Your task to perform on an android device: open chrome and create a bookmark for the current page Image 0: 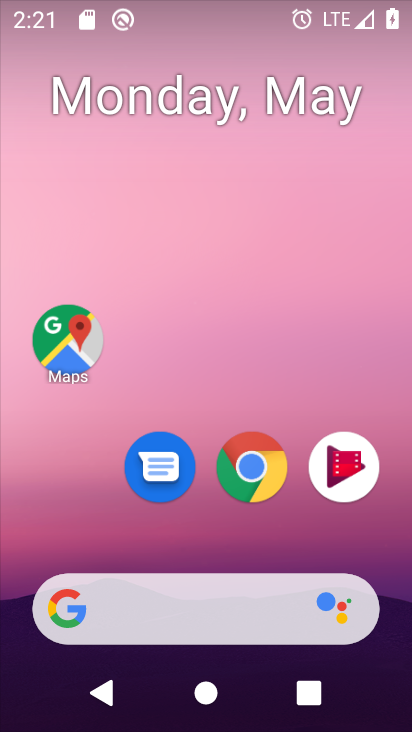
Step 0: drag from (212, 512) to (208, 221)
Your task to perform on an android device: open chrome and create a bookmark for the current page Image 1: 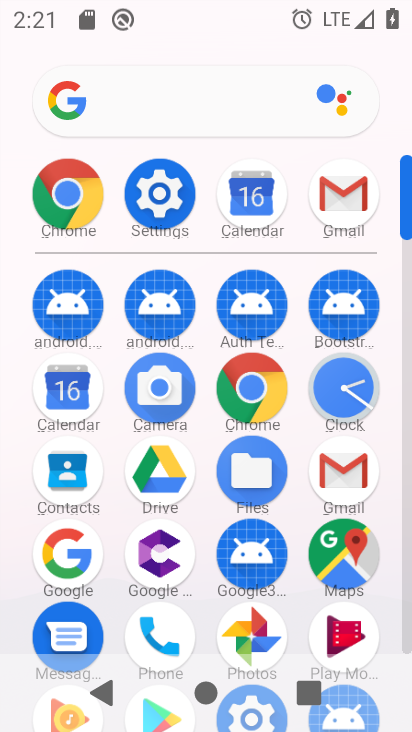
Step 1: click (258, 395)
Your task to perform on an android device: open chrome and create a bookmark for the current page Image 2: 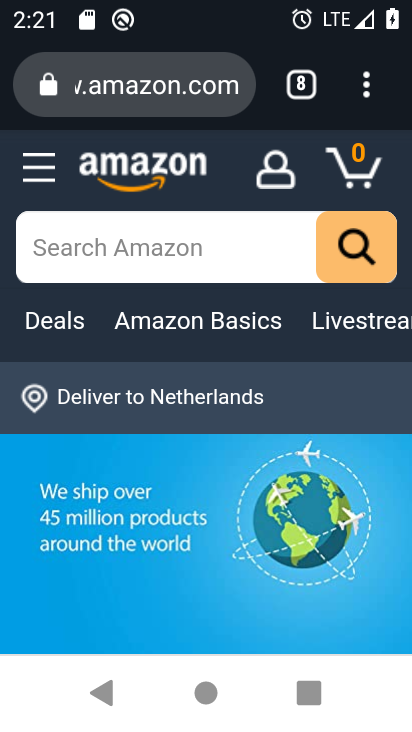
Step 2: click (355, 78)
Your task to perform on an android device: open chrome and create a bookmark for the current page Image 3: 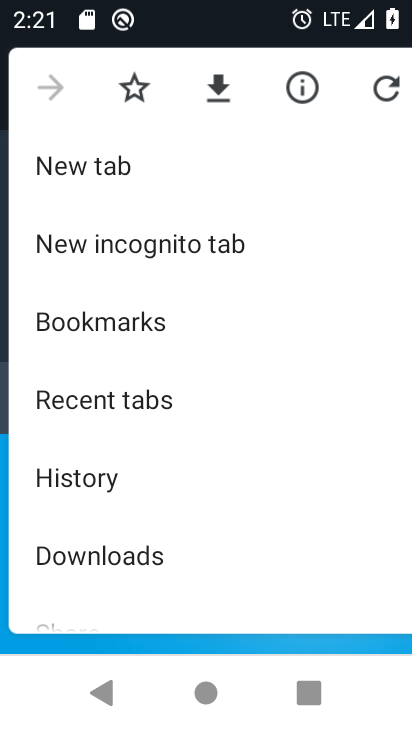
Step 3: click (136, 85)
Your task to perform on an android device: open chrome and create a bookmark for the current page Image 4: 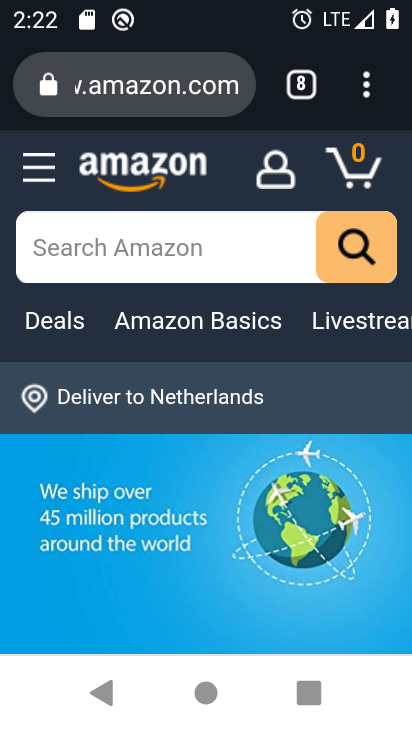
Step 4: task complete